Your task to perform on an android device: Go to eBay Image 0: 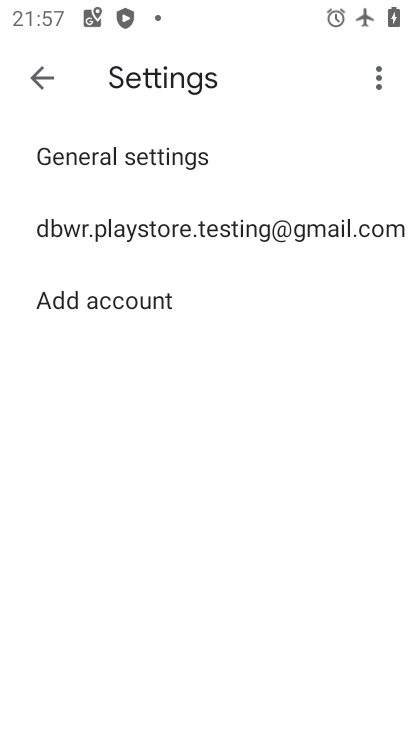
Step 0: press home button
Your task to perform on an android device: Go to eBay Image 1: 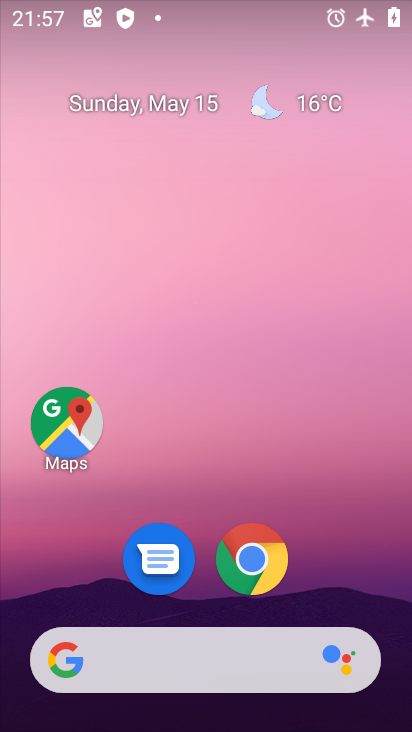
Step 1: click (194, 668)
Your task to perform on an android device: Go to eBay Image 2: 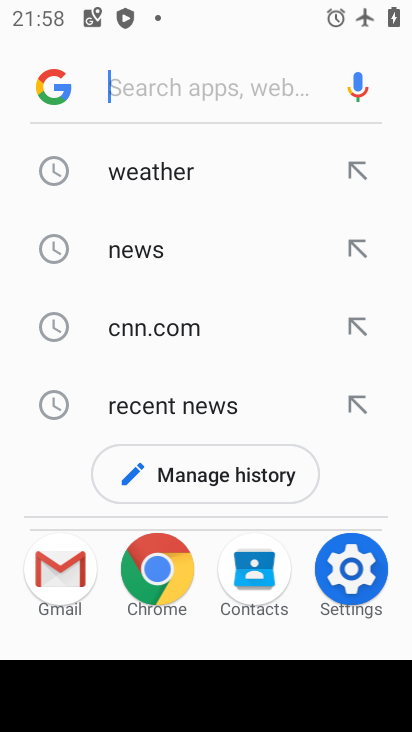
Step 2: type "ebay"
Your task to perform on an android device: Go to eBay Image 3: 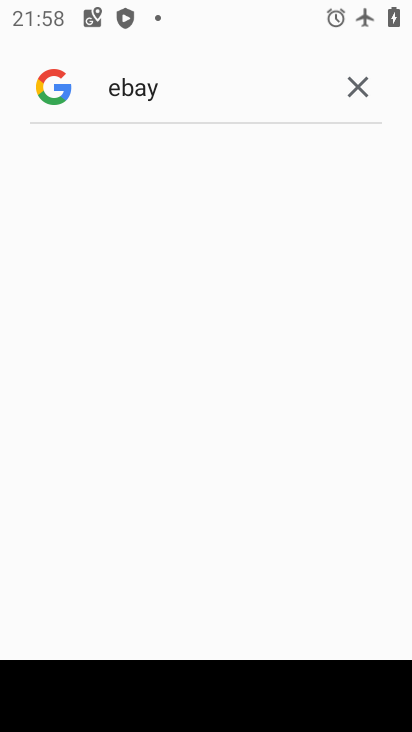
Step 3: click (264, 94)
Your task to perform on an android device: Go to eBay Image 4: 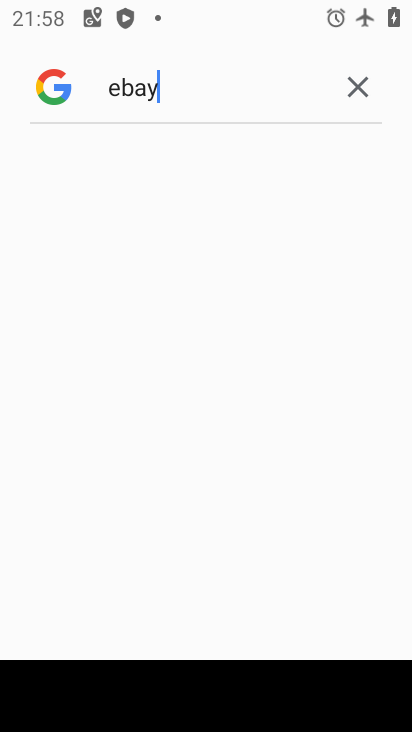
Step 4: task complete